Your task to perform on an android device: Show me the alarms in the clock app Image 0: 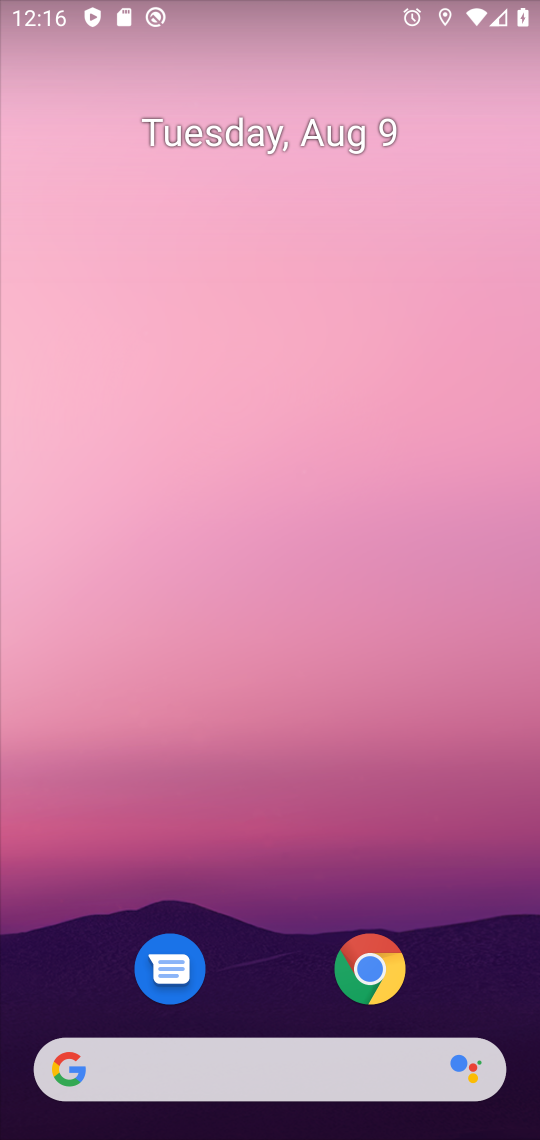
Step 0: drag from (177, 508) to (340, 1126)
Your task to perform on an android device: Show me the alarms in the clock app Image 1: 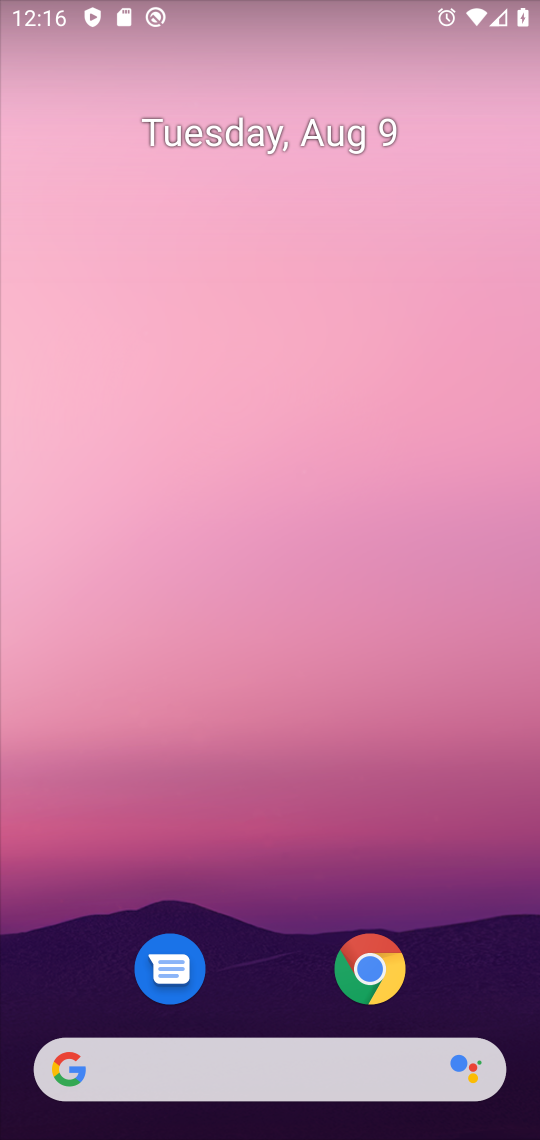
Step 1: drag from (250, 1009) to (315, 389)
Your task to perform on an android device: Show me the alarms in the clock app Image 2: 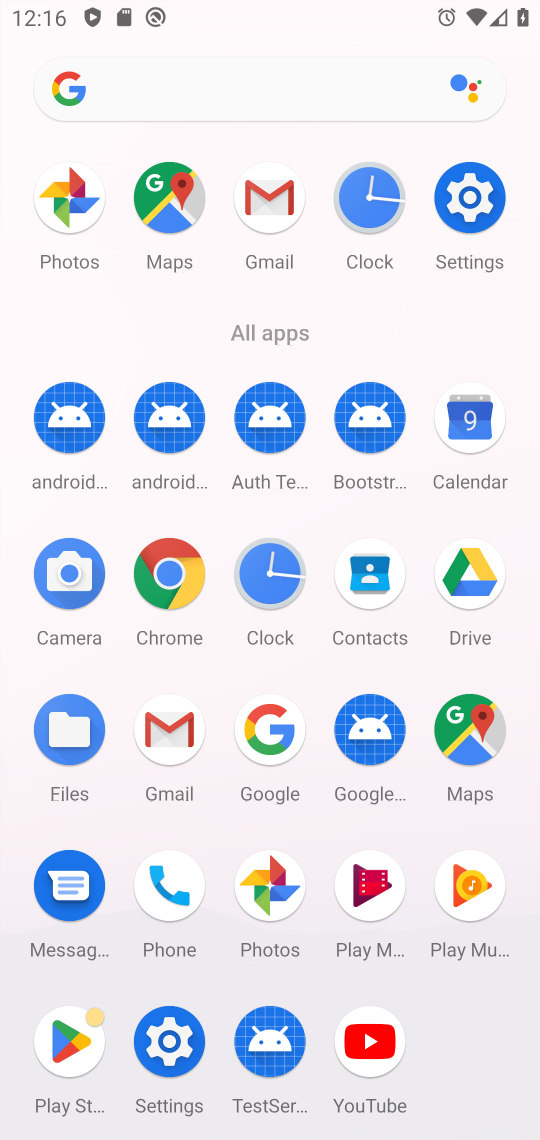
Step 2: click (272, 579)
Your task to perform on an android device: Show me the alarms in the clock app Image 3: 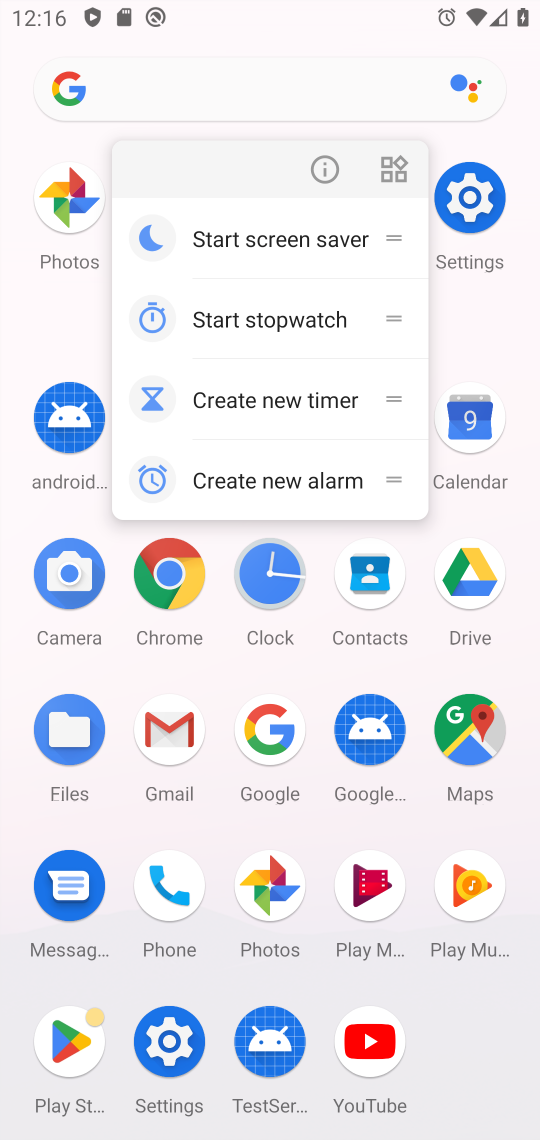
Step 3: click (318, 163)
Your task to perform on an android device: Show me the alarms in the clock app Image 4: 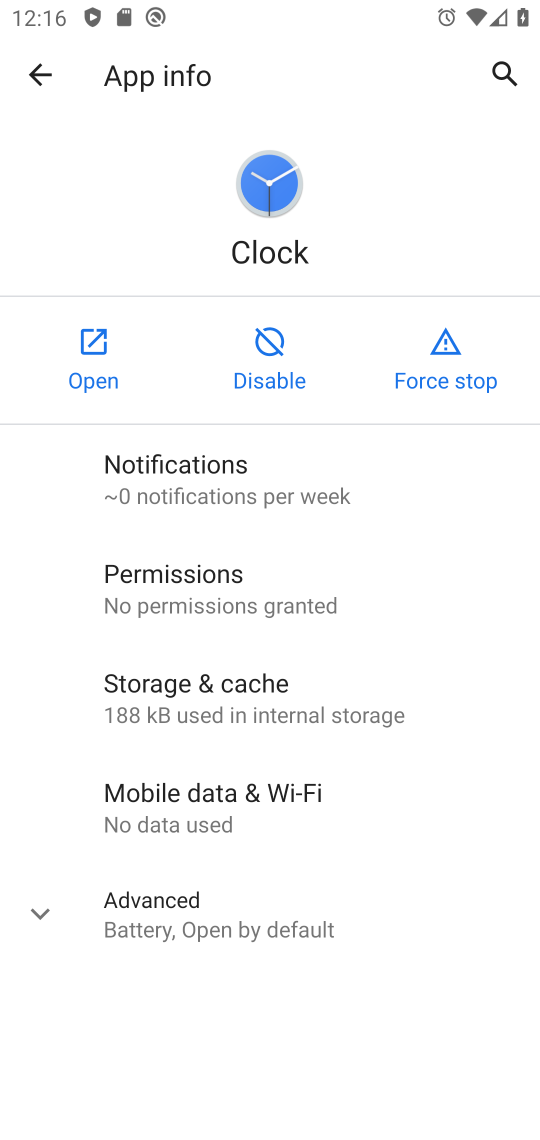
Step 4: click (91, 359)
Your task to perform on an android device: Show me the alarms in the clock app Image 5: 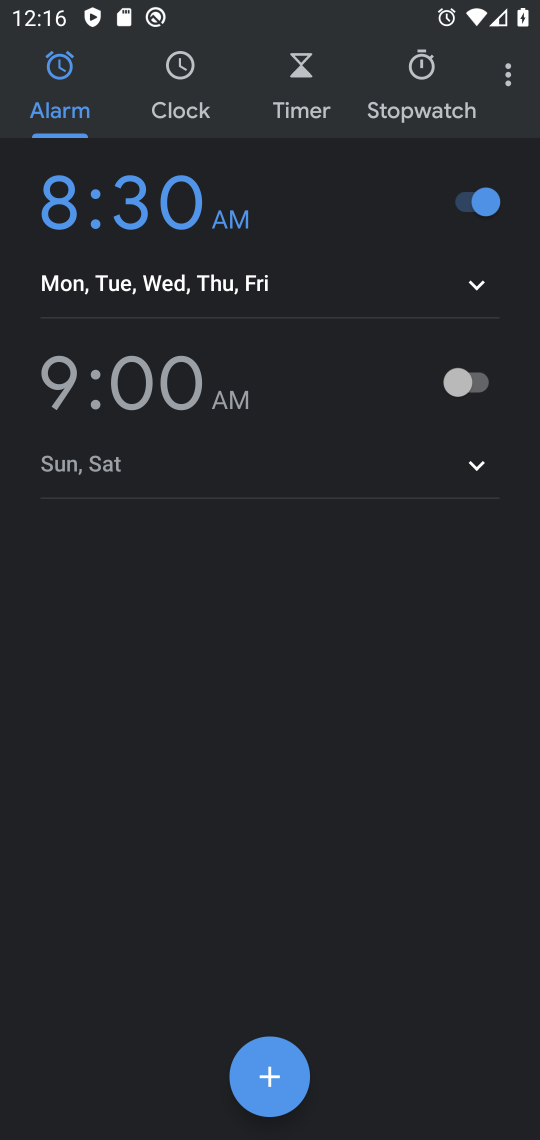
Step 5: task complete